Your task to perform on an android device: uninstall "VLC for Android" Image 0: 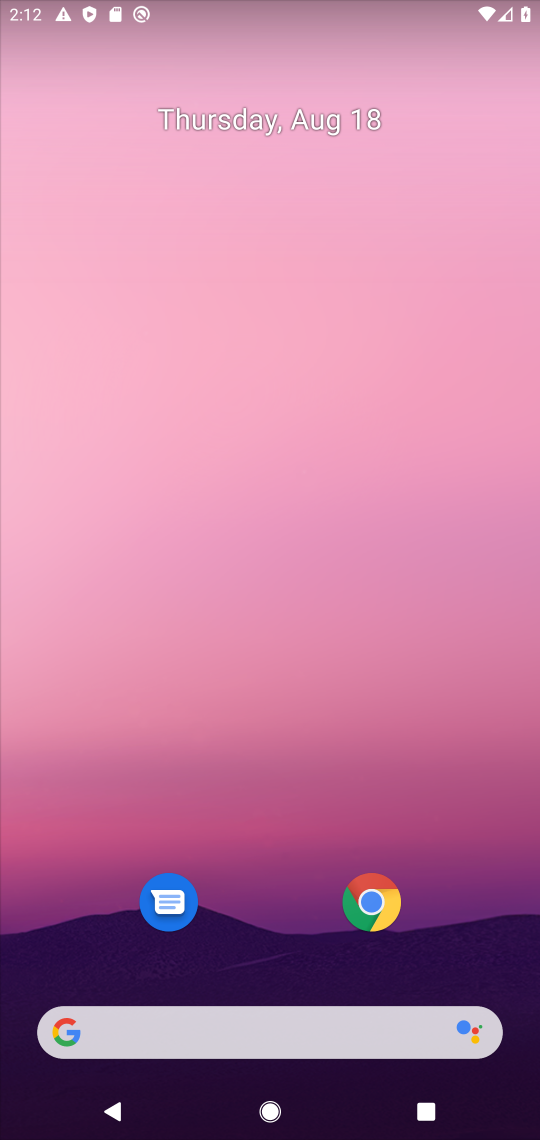
Step 0: drag from (479, 944) to (521, 182)
Your task to perform on an android device: uninstall "VLC for Android" Image 1: 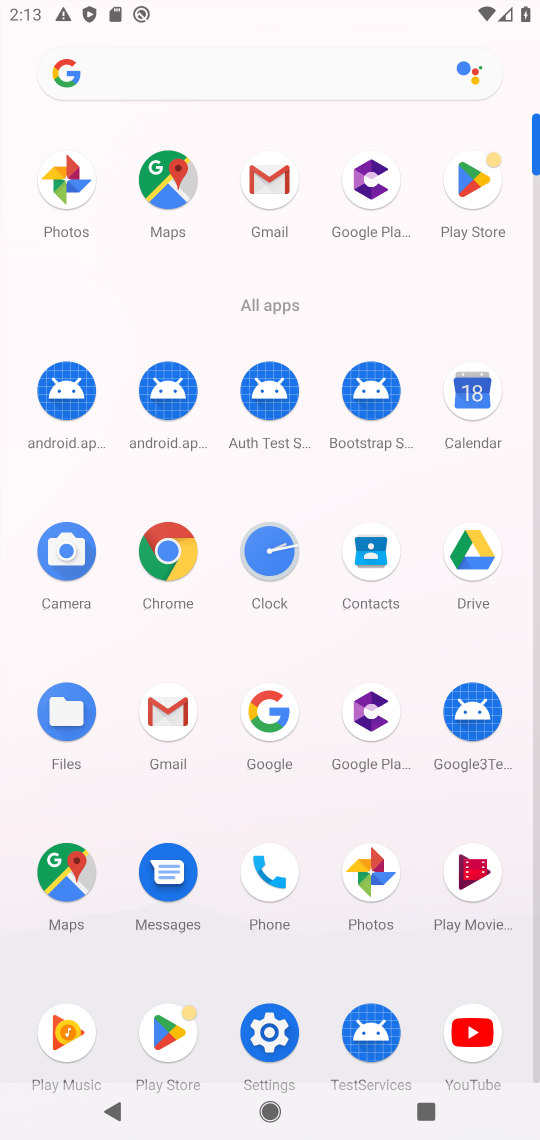
Step 1: click (167, 1023)
Your task to perform on an android device: uninstall "VLC for Android" Image 2: 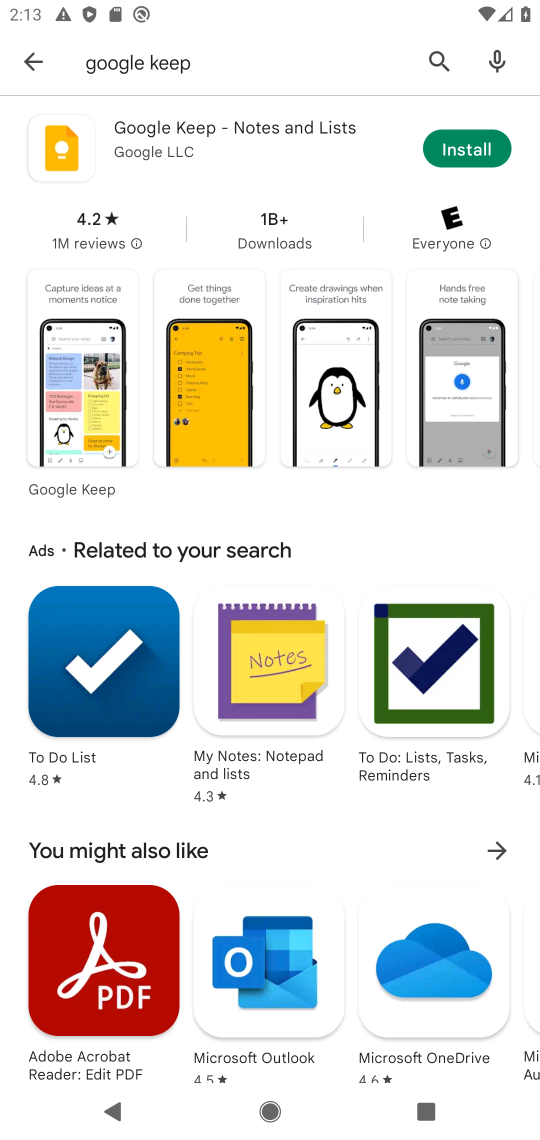
Step 2: click (431, 48)
Your task to perform on an android device: uninstall "VLC for Android" Image 3: 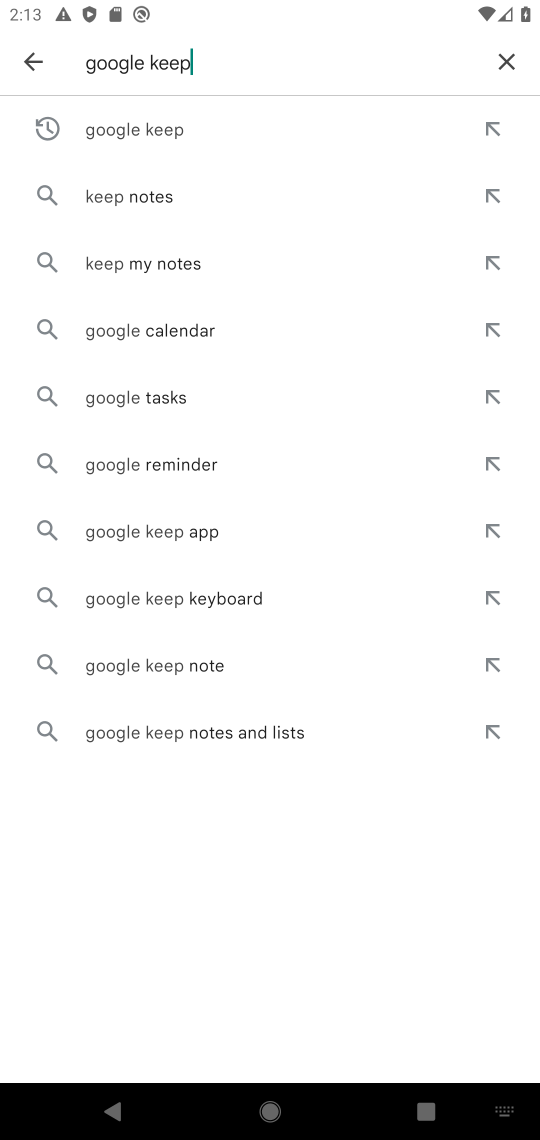
Step 3: click (509, 60)
Your task to perform on an android device: uninstall "VLC for Android" Image 4: 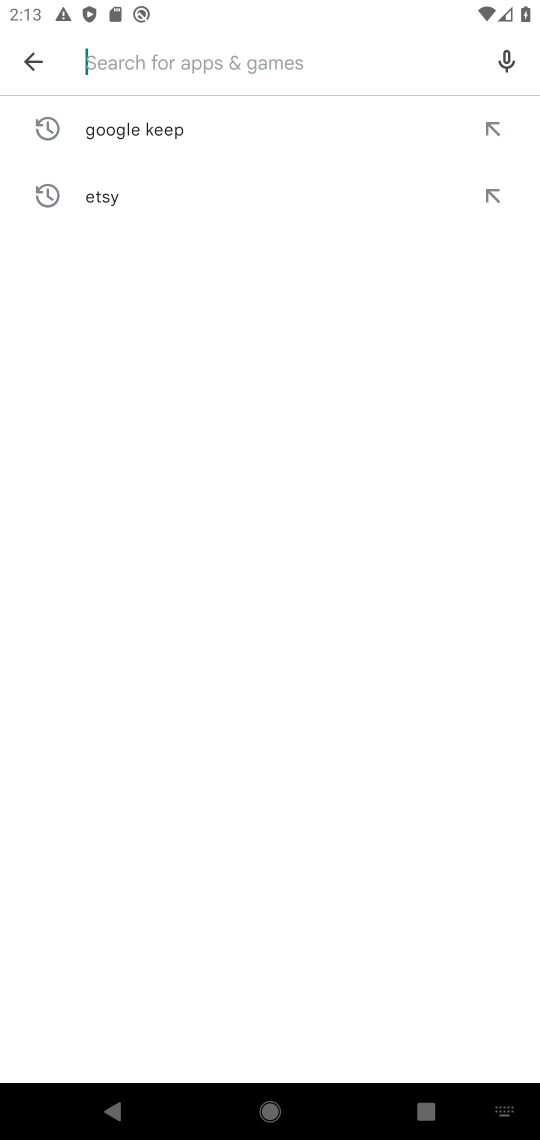
Step 4: type "vlc for android"
Your task to perform on an android device: uninstall "VLC for Android" Image 5: 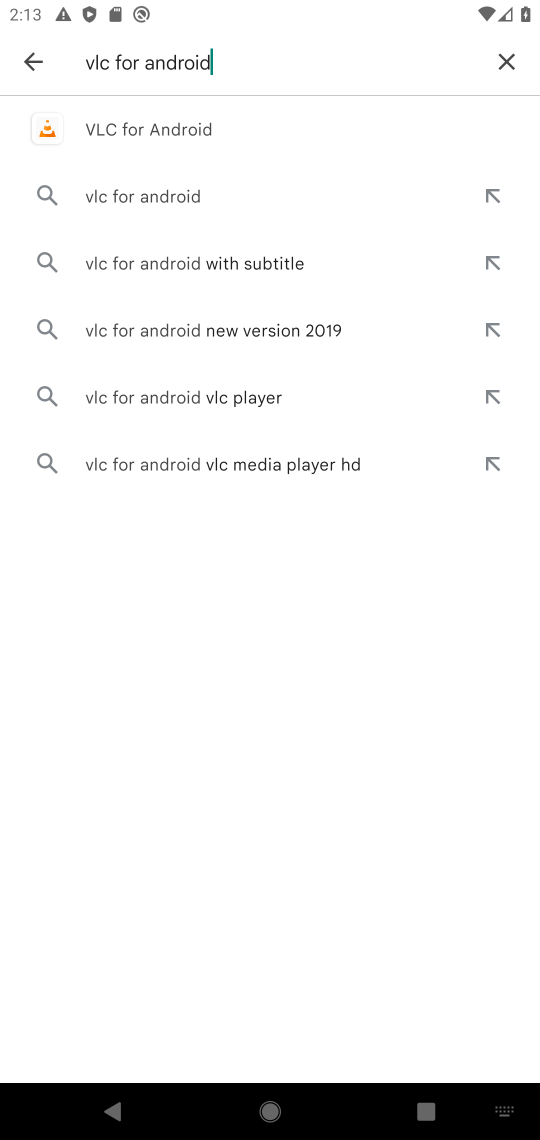
Step 5: click (206, 130)
Your task to perform on an android device: uninstall "VLC for Android" Image 6: 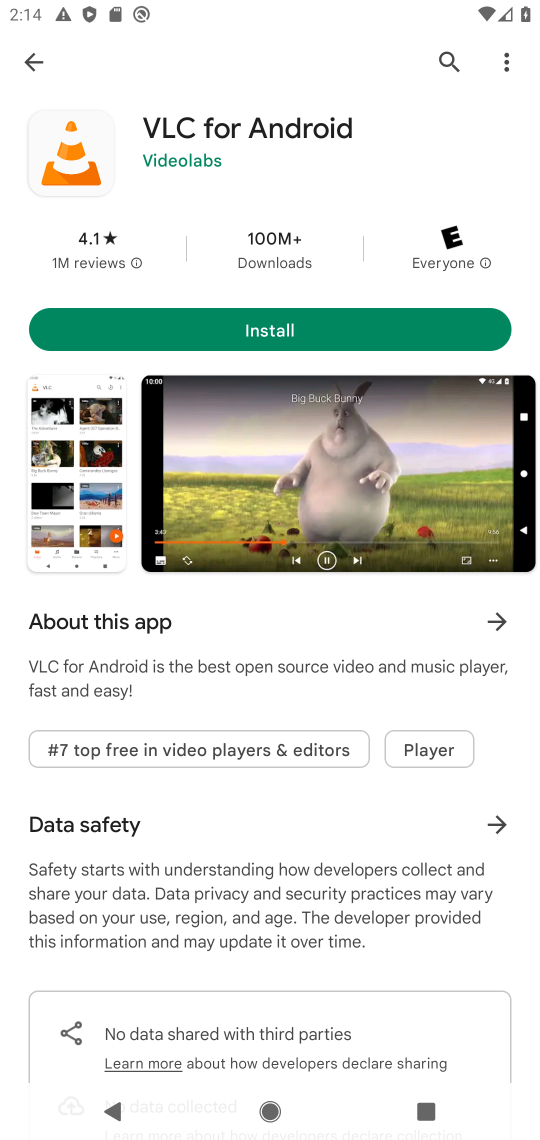
Step 6: task complete